Your task to perform on an android device: Open Google Chrome Image 0: 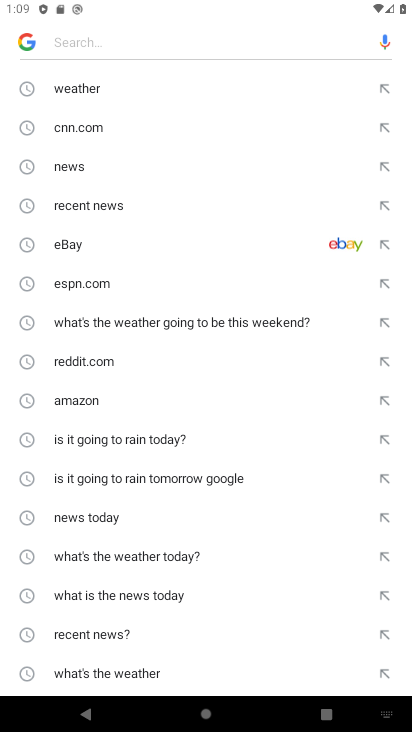
Step 0: click (199, 711)
Your task to perform on an android device: Open Google Chrome Image 1: 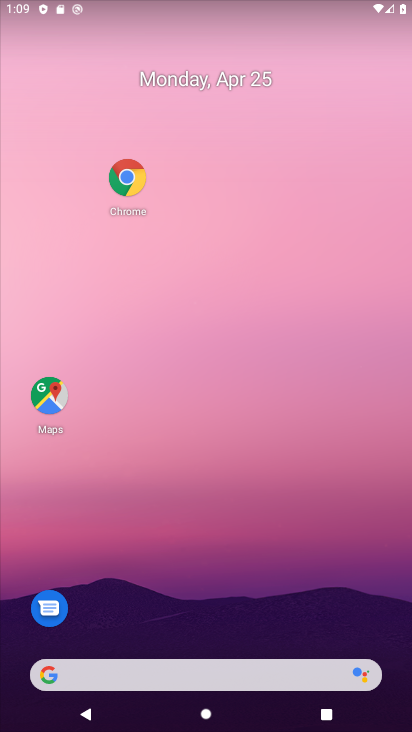
Step 1: click (119, 177)
Your task to perform on an android device: Open Google Chrome Image 2: 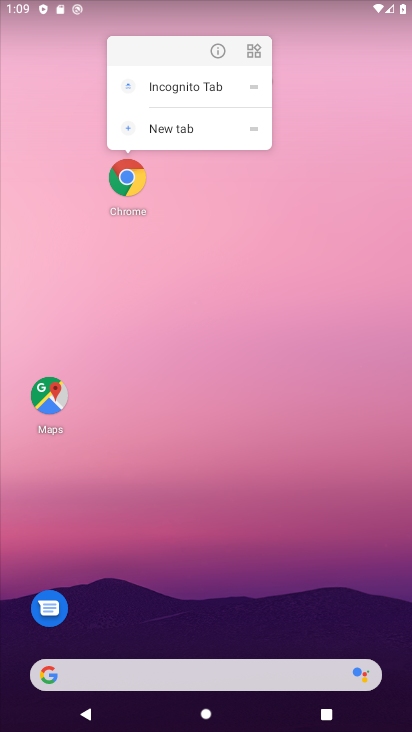
Step 2: drag from (313, 457) to (346, 42)
Your task to perform on an android device: Open Google Chrome Image 3: 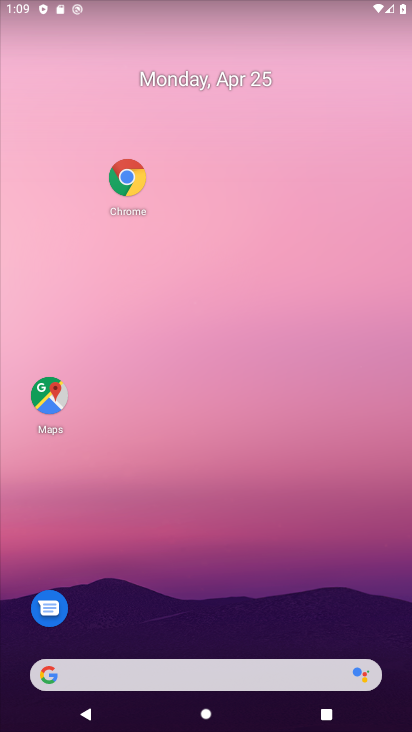
Step 3: drag from (221, 100) to (212, 0)
Your task to perform on an android device: Open Google Chrome Image 4: 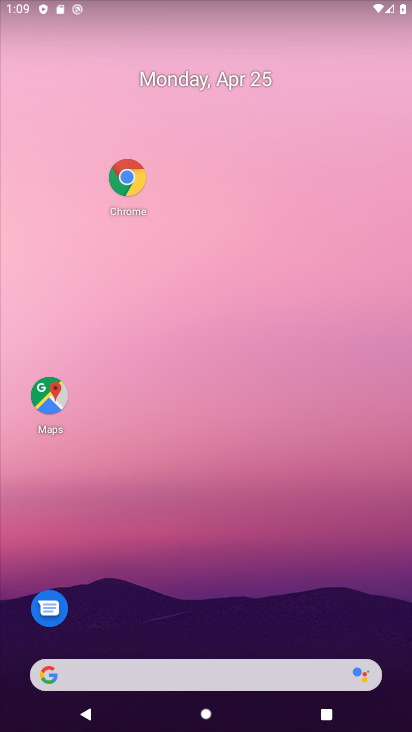
Step 4: drag from (320, 618) to (276, 32)
Your task to perform on an android device: Open Google Chrome Image 5: 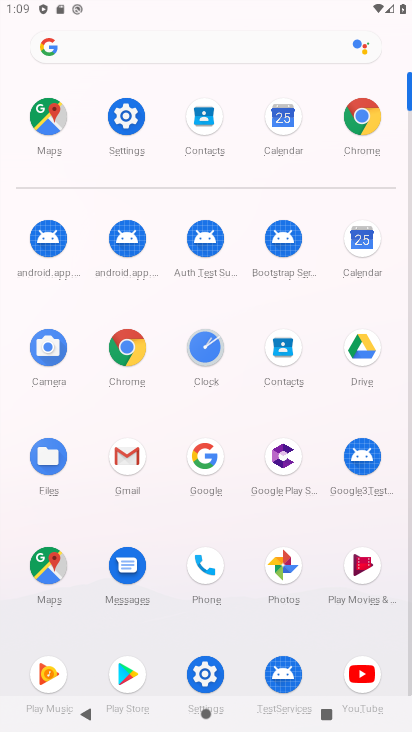
Step 5: click (121, 345)
Your task to perform on an android device: Open Google Chrome Image 6: 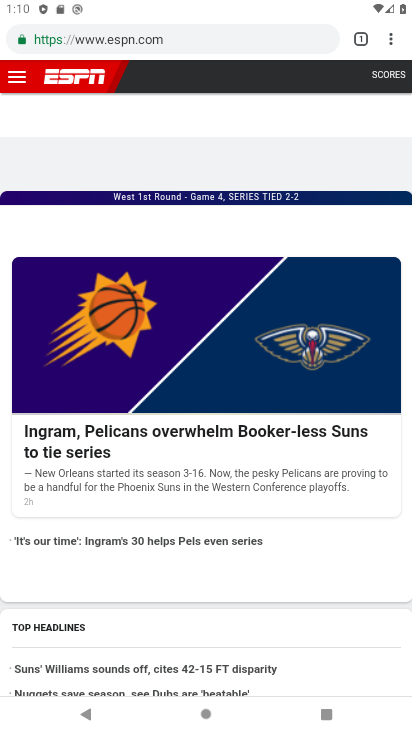
Step 6: task complete